Your task to perform on an android device: all mails in gmail Image 0: 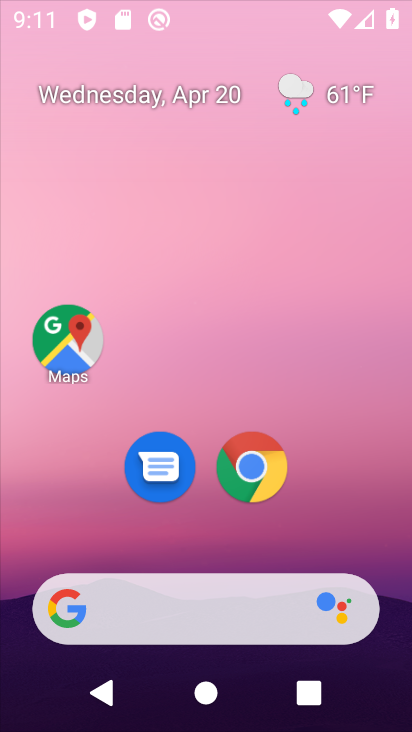
Step 0: press home button
Your task to perform on an android device: all mails in gmail Image 1: 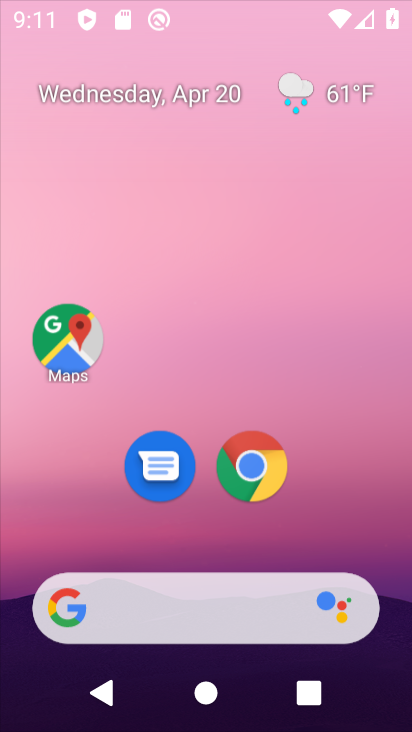
Step 1: drag from (331, 458) to (331, 204)
Your task to perform on an android device: all mails in gmail Image 2: 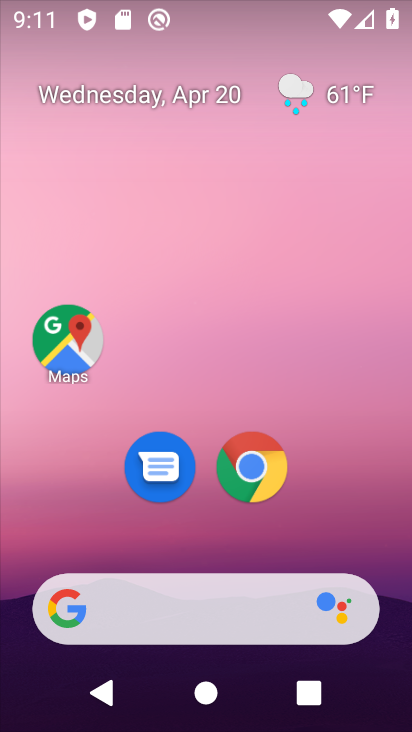
Step 2: drag from (343, 513) to (317, 141)
Your task to perform on an android device: all mails in gmail Image 3: 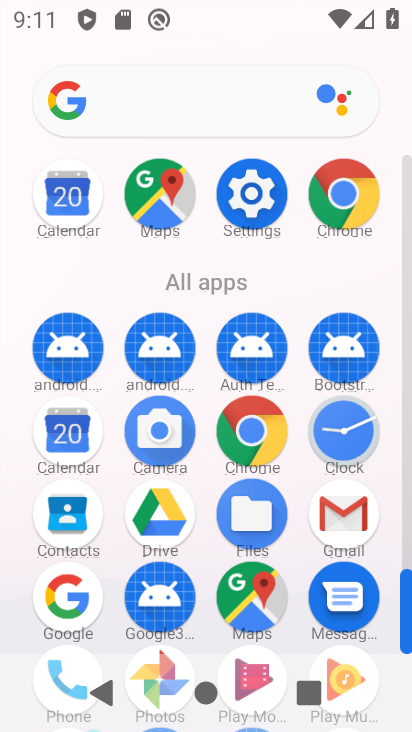
Step 3: click (338, 513)
Your task to perform on an android device: all mails in gmail Image 4: 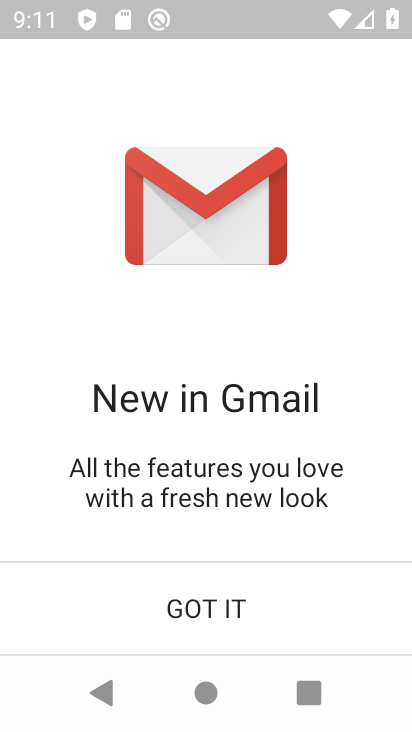
Step 4: click (235, 609)
Your task to perform on an android device: all mails in gmail Image 5: 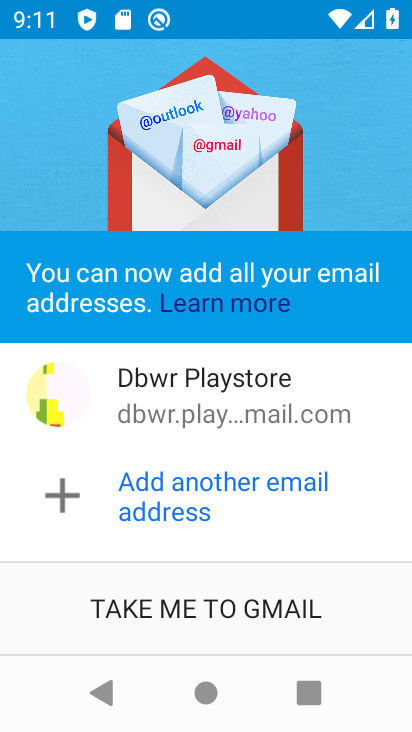
Step 5: click (232, 608)
Your task to perform on an android device: all mails in gmail Image 6: 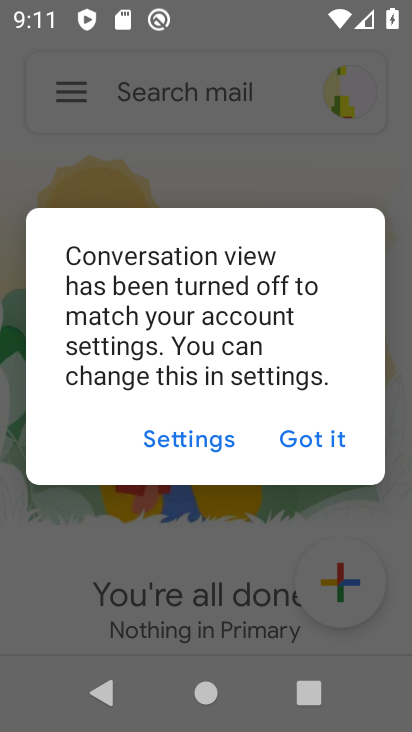
Step 6: click (322, 436)
Your task to perform on an android device: all mails in gmail Image 7: 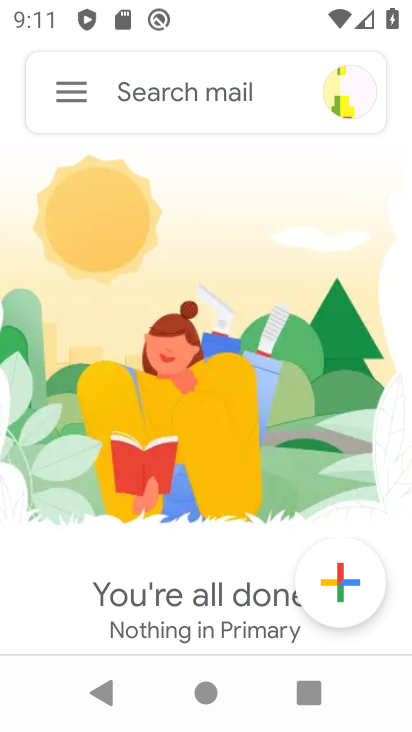
Step 7: click (79, 99)
Your task to perform on an android device: all mails in gmail Image 8: 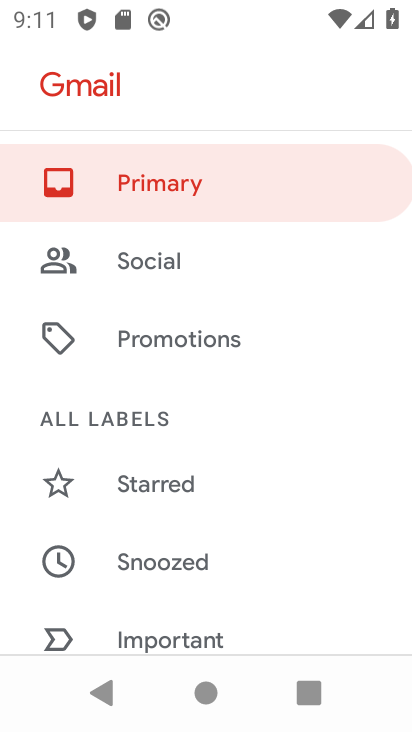
Step 8: drag from (148, 576) to (202, 186)
Your task to perform on an android device: all mails in gmail Image 9: 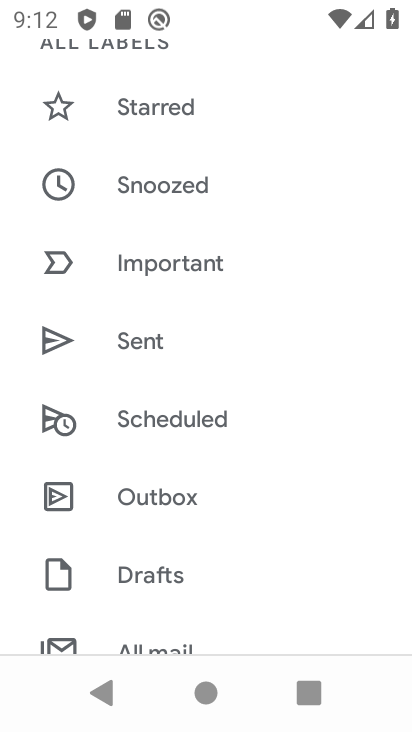
Step 9: drag from (137, 532) to (228, 154)
Your task to perform on an android device: all mails in gmail Image 10: 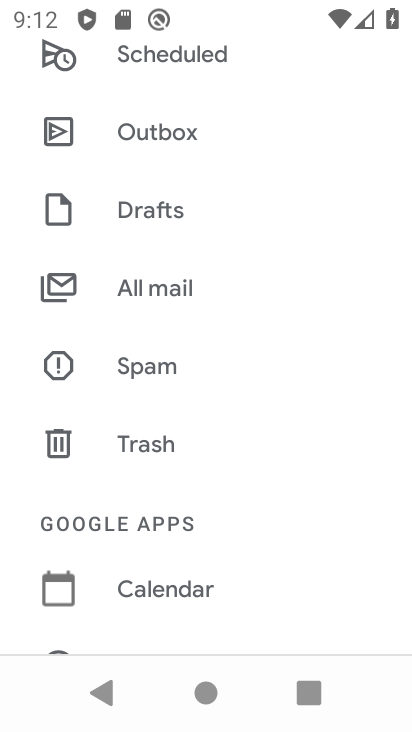
Step 10: click (150, 283)
Your task to perform on an android device: all mails in gmail Image 11: 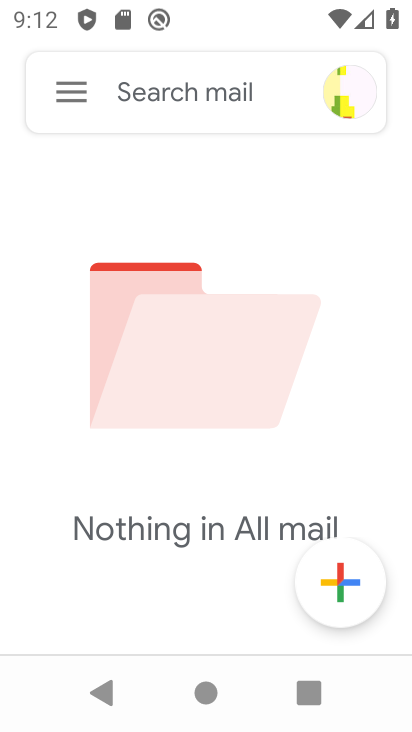
Step 11: task complete